Your task to perform on an android device: choose inbox layout in the gmail app Image 0: 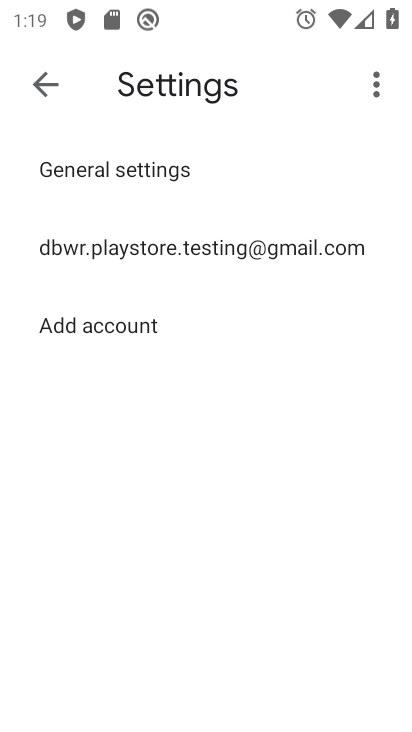
Step 0: click (267, 255)
Your task to perform on an android device: choose inbox layout in the gmail app Image 1: 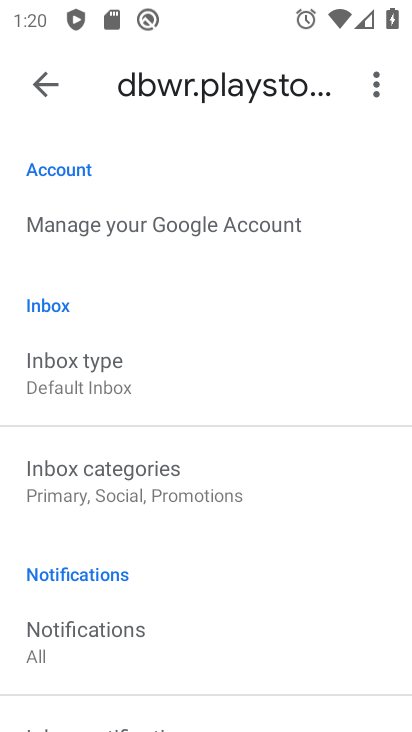
Step 1: drag from (168, 661) to (178, 372)
Your task to perform on an android device: choose inbox layout in the gmail app Image 2: 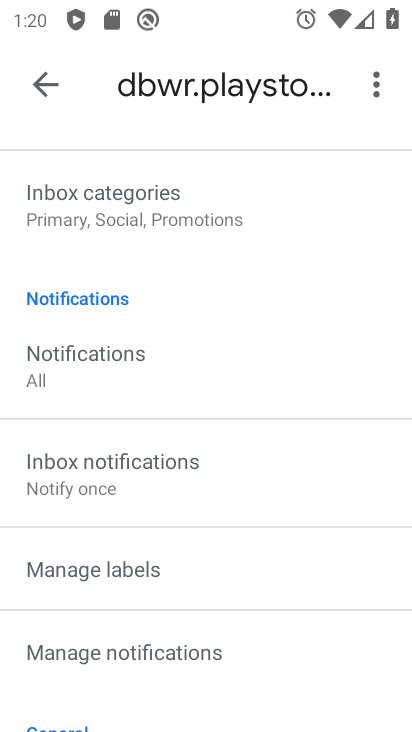
Step 2: drag from (184, 238) to (193, 422)
Your task to perform on an android device: choose inbox layout in the gmail app Image 3: 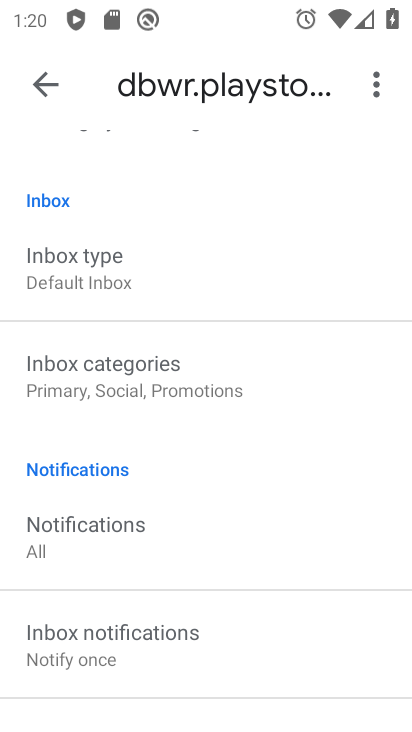
Step 3: click (133, 282)
Your task to perform on an android device: choose inbox layout in the gmail app Image 4: 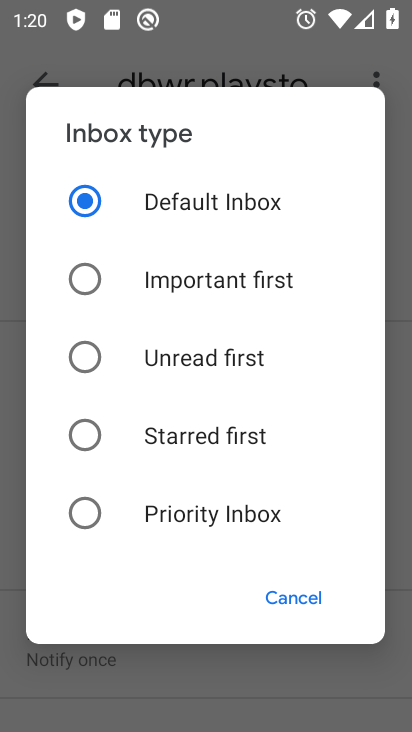
Step 4: click (217, 521)
Your task to perform on an android device: choose inbox layout in the gmail app Image 5: 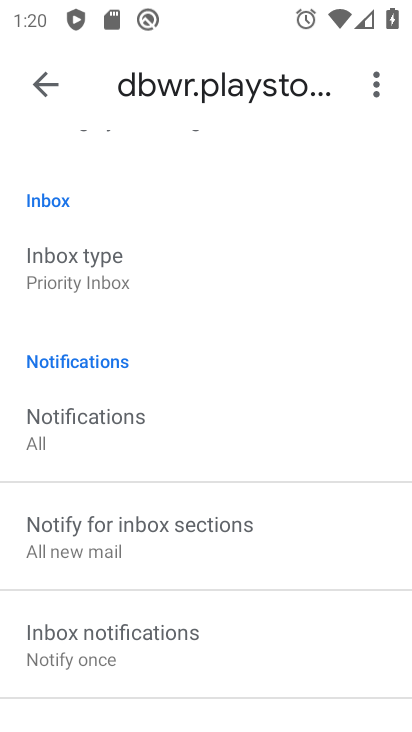
Step 5: task complete